Your task to perform on an android device: Open Chrome and go to the settings page Image 0: 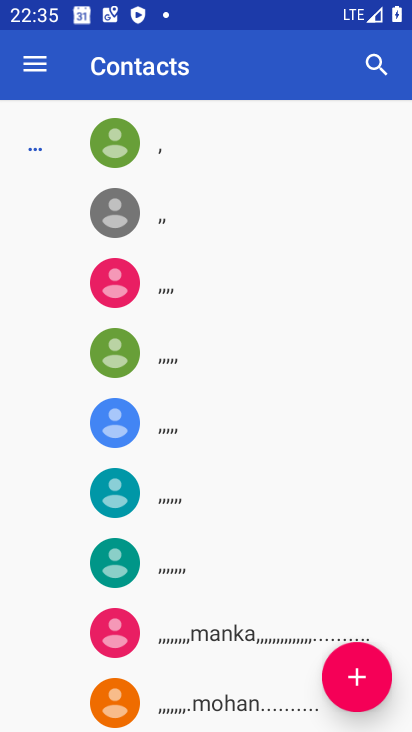
Step 0: press home button
Your task to perform on an android device: Open Chrome and go to the settings page Image 1: 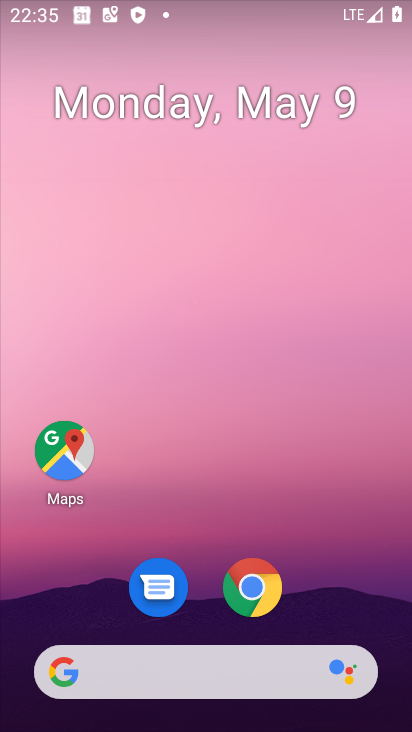
Step 1: click (244, 587)
Your task to perform on an android device: Open Chrome and go to the settings page Image 2: 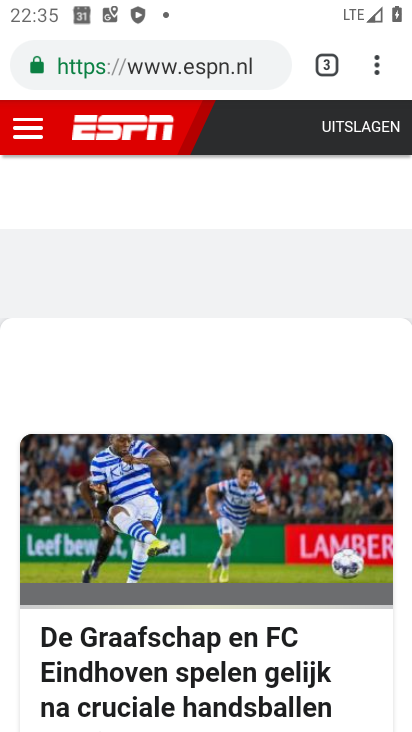
Step 2: press home button
Your task to perform on an android device: Open Chrome and go to the settings page Image 3: 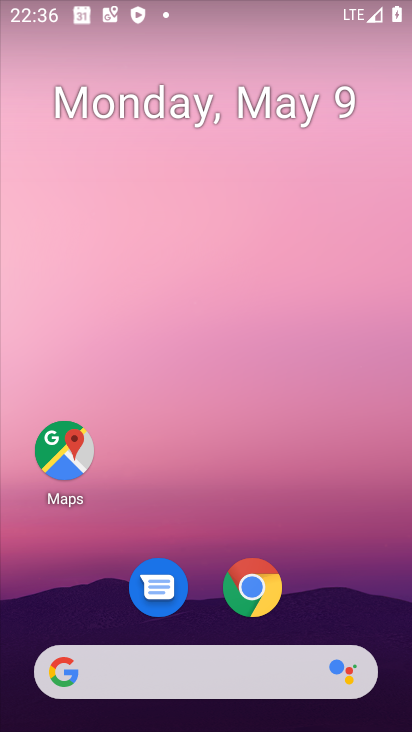
Step 3: click (260, 588)
Your task to perform on an android device: Open Chrome and go to the settings page Image 4: 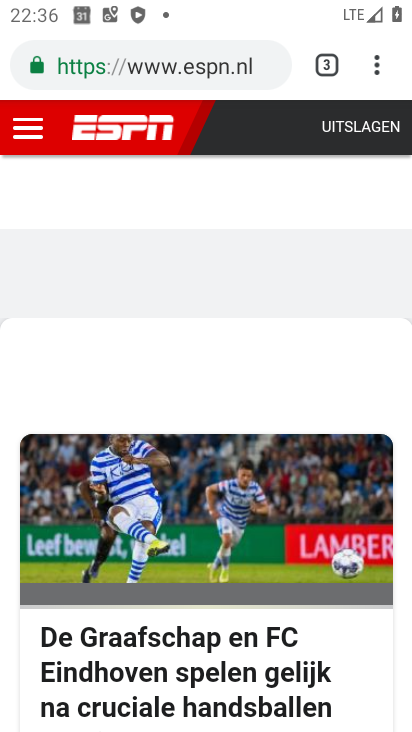
Step 4: click (371, 63)
Your task to perform on an android device: Open Chrome and go to the settings page Image 5: 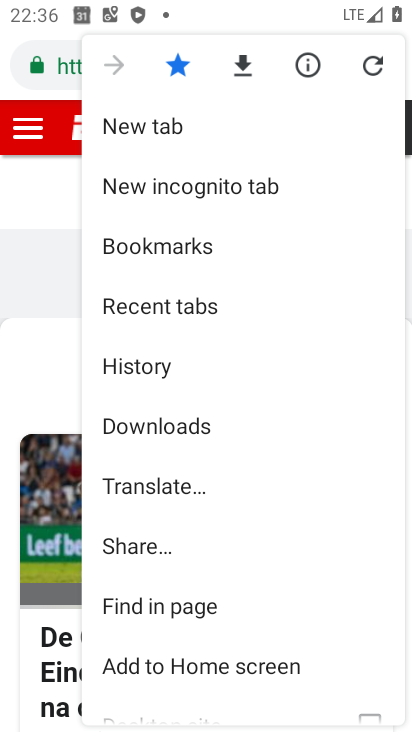
Step 5: drag from (226, 633) to (270, 211)
Your task to perform on an android device: Open Chrome and go to the settings page Image 6: 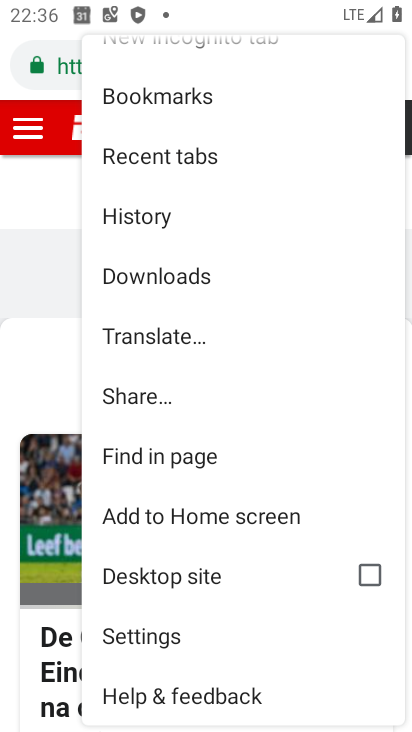
Step 6: click (165, 640)
Your task to perform on an android device: Open Chrome and go to the settings page Image 7: 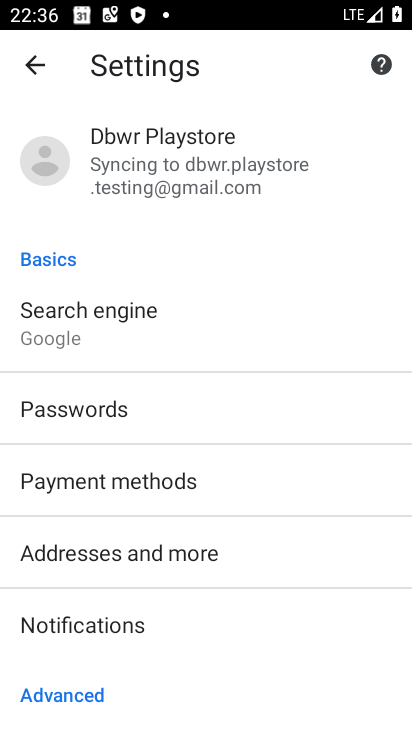
Step 7: task complete